Your task to perform on an android device: Go to eBay Image 0: 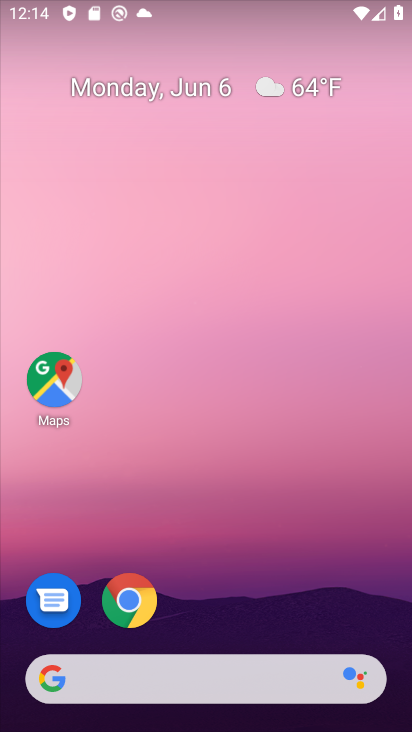
Step 0: click (66, 374)
Your task to perform on an android device: Go to eBay Image 1: 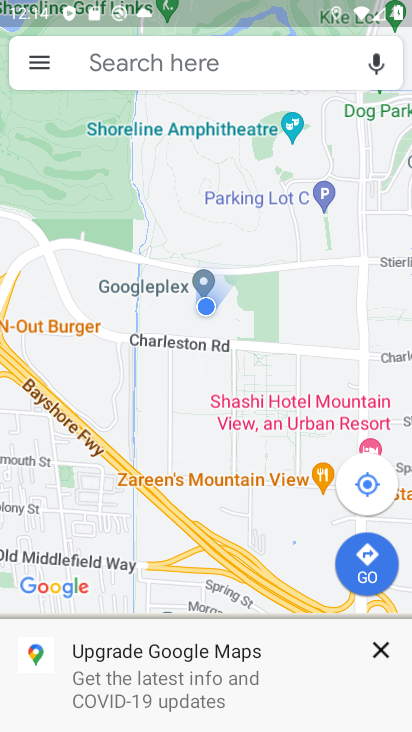
Step 1: click (190, 46)
Your task to perform on an android device: Go to eBay Image 2: 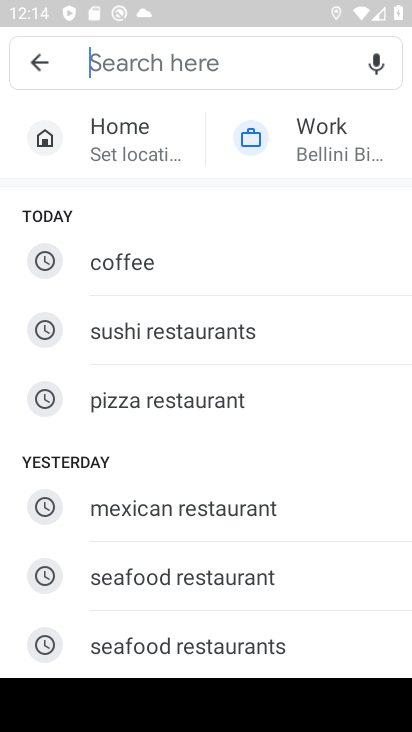
Step 2: type "eBay"
Your task to perform on an android device: Go to eBay Image 3: 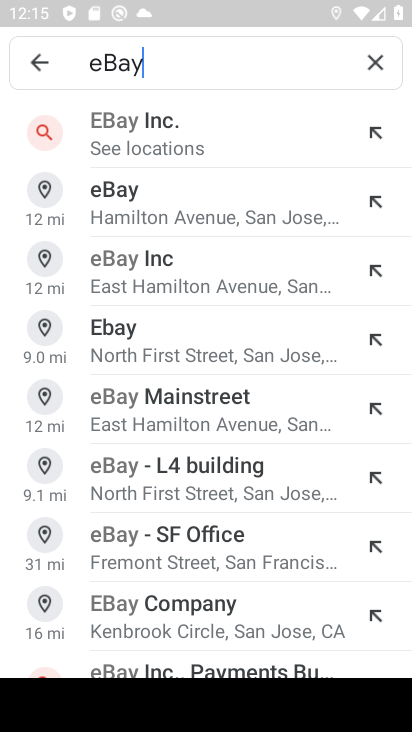
Step 3: click (135, 175)
Your task to perform on an android device: Go to eBay Image 4: 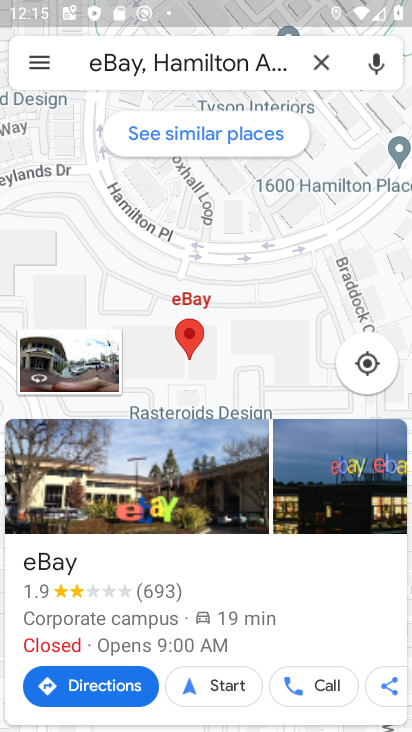
Step 4: task complete